Your task to perform on an android device: turn notification dots off Image 0: 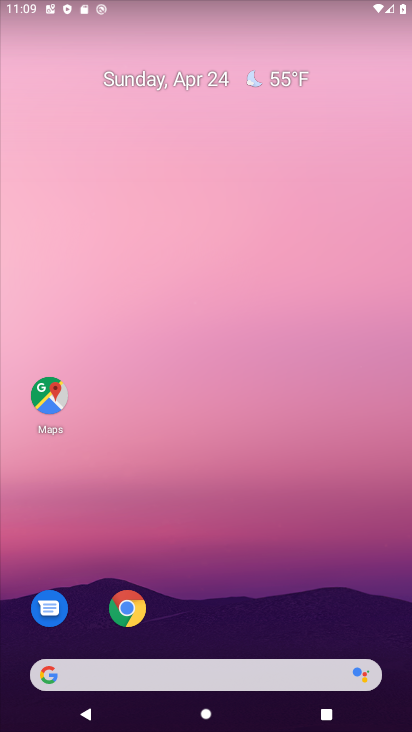
Step 0: drag from (207, 492) to (240, 128)
Your task to perform on an android device: turn notification dots off Image 1: 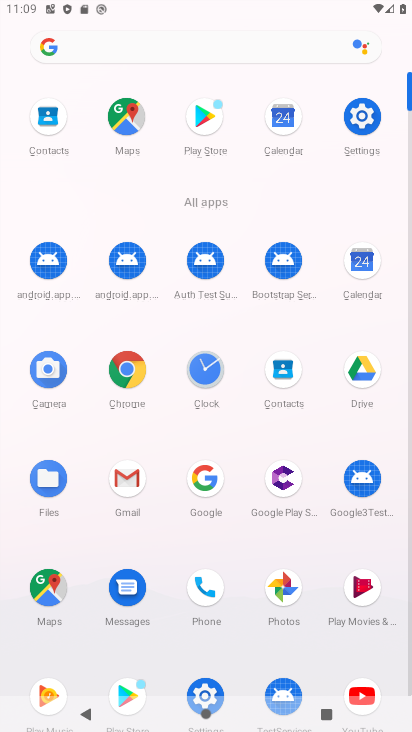
Step 1: click (361, 122)
Your task to perform on an android device: turn notification dots off Image 2: 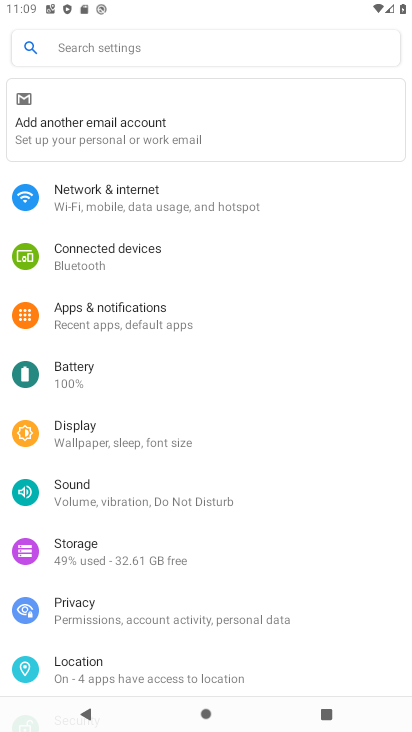
Step 2: click (123, 324)
Your task to perform on an android device: turn notification dots off Image 3: 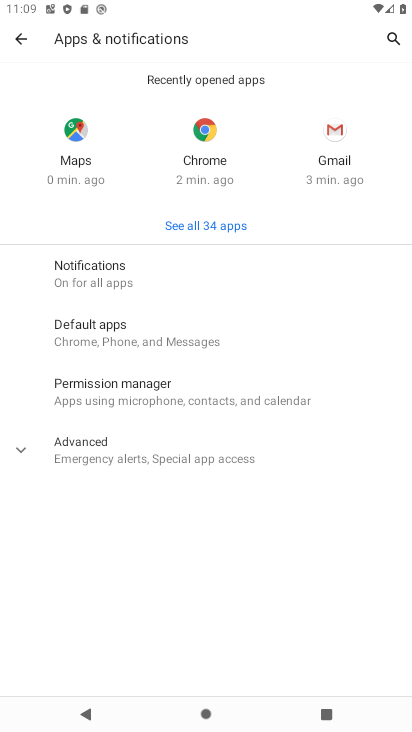
Step 3: click (137, 276)
Your task to perform on an android device: turn notification dots off Image 4: 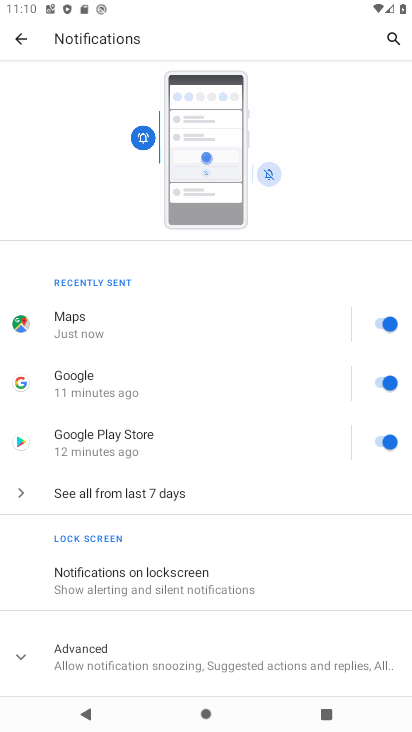
Step 4: drag from (181, 660) to (271, 218)
Your task to perform on an android device: turn notification dots off Image 5: 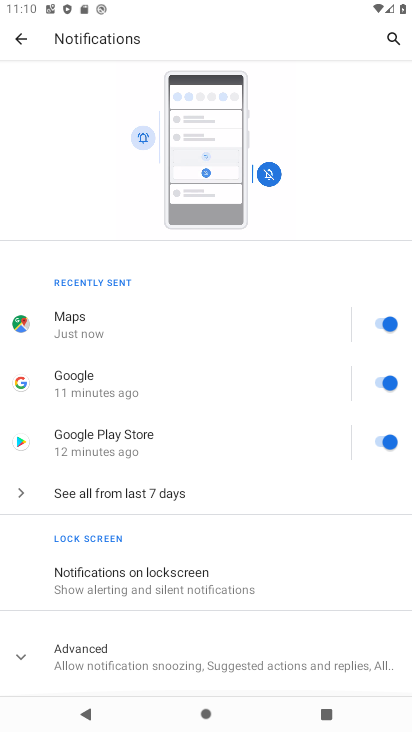
Step 5: click (136, 659)
Your task to perform on an android device: turn notification dots off Image 6: 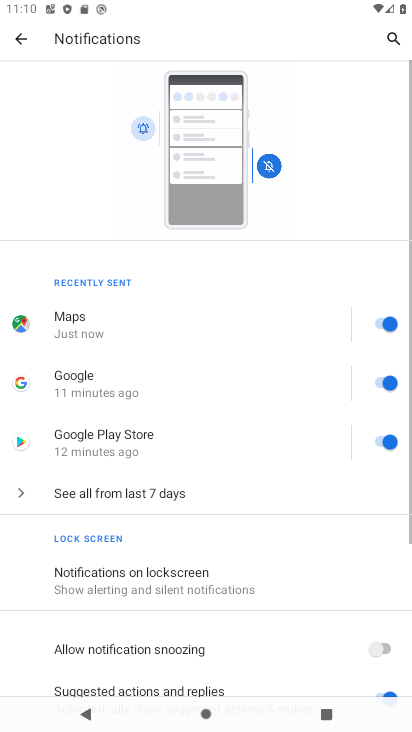
Step 6: drag from (149, 638) to (246, 162)
Your task to perform on an android device: turn notification dots off Image 7: 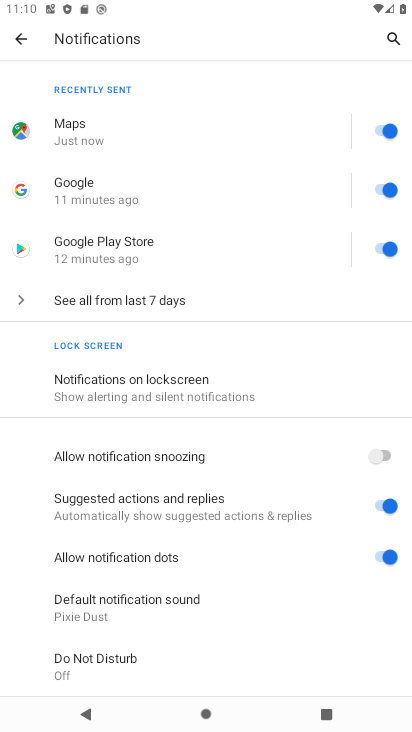
Step 7: click (386, 555)
Your task to perform on an android device: turn notification dots off Image 8: 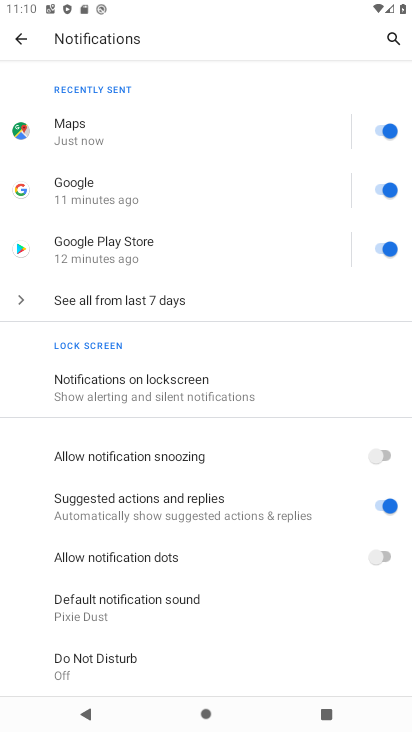
Step 8: task complete